Your task to perform on an android device: Open Reddit.com Image 0: 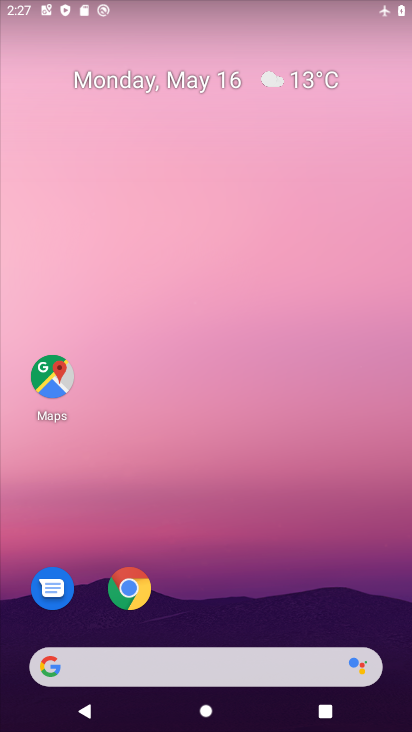
Step 0: drag from (252, 658) to (410, 208)
Your task to perform on an android device: Open Reddit.com Image 1: 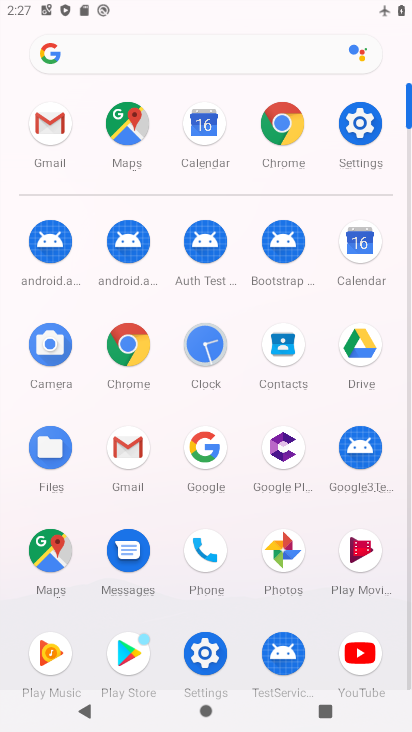
Step 1: click (283, 134)
Your task to perform on an android device: Open Reddit.com Image 2: 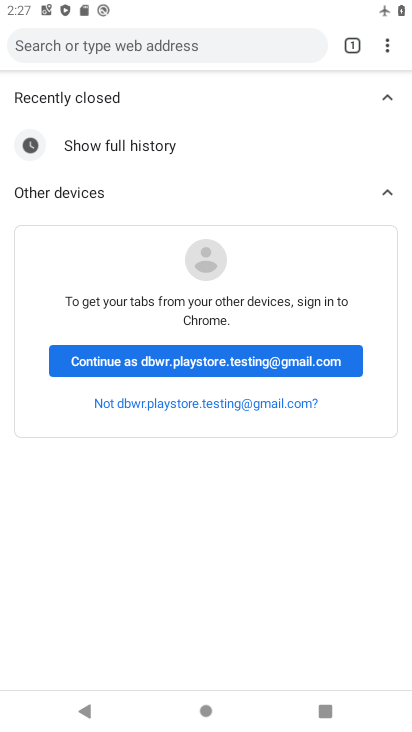
Step 2: click (212, 43)
Your task to perform on an android device: Open Reddit.com Image 3: 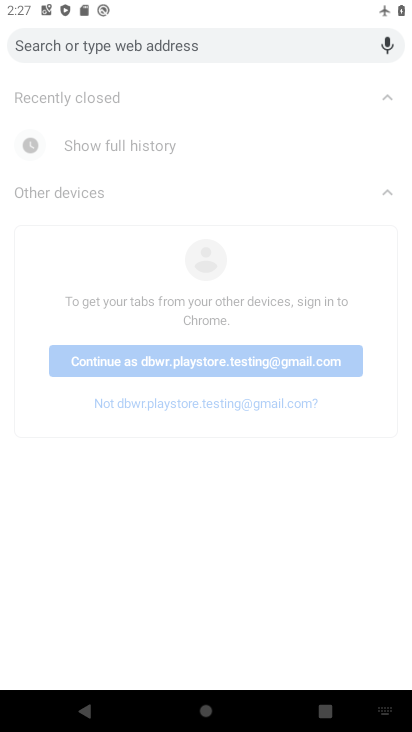
Step 3: type "reddit.com"
Your task to perform on an android device: Open Reddit.com Image 4: 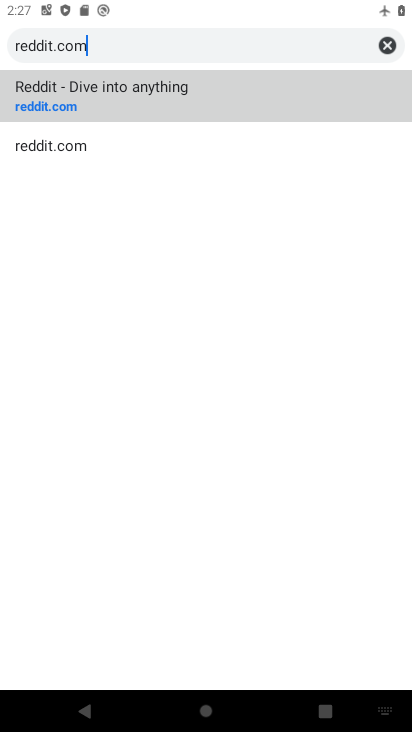
Step 4: click (88, 85)
Your task to perform on an android device: Open Reddit.com Image 5: 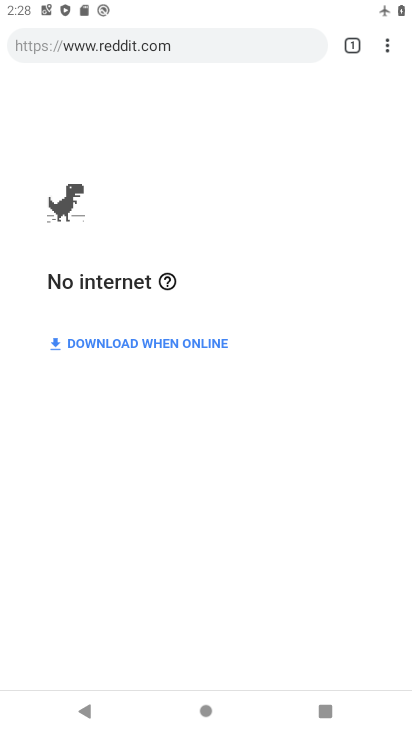
Step 5: task complete